Your task to perform on an android device: turn on the 12-hour format for clock Image 0: 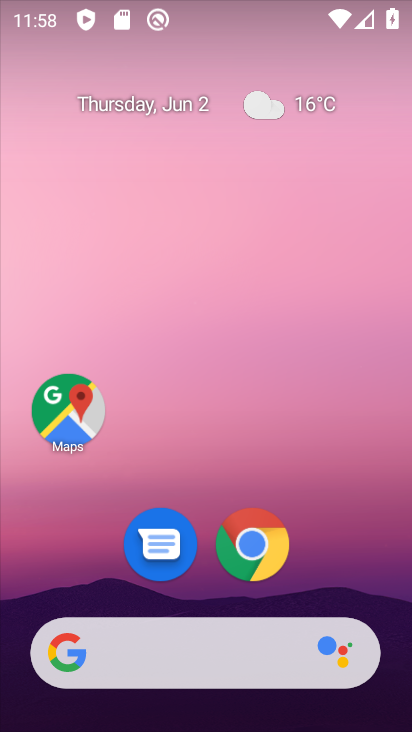
Step 0: drag from (321, 546) to (350, 150)
Your task to perform on an android device: turn on the 12-hour format for clock Image 1: 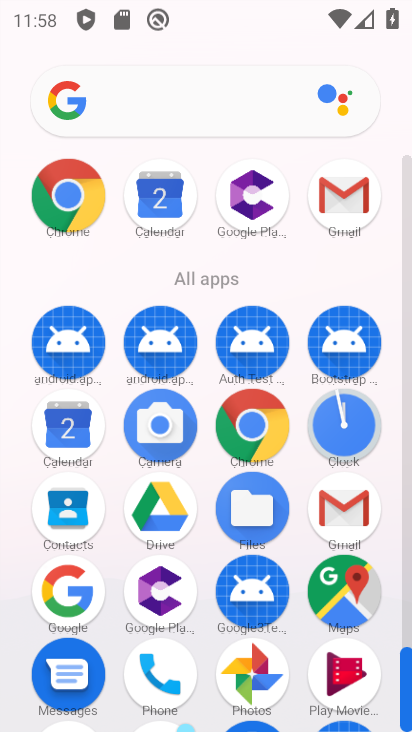
Step 1: drag from (290, 657) to (306, 345)
Your task to perform on an android device: turn on the 12-hour format for clock Image 2: 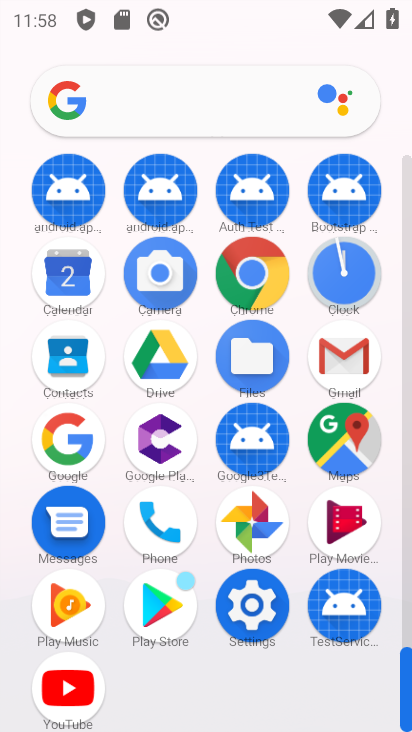
Step 2: click (329, 289)
Your task to perform on an android device: turn on the 12-hour format for clock Image 3: 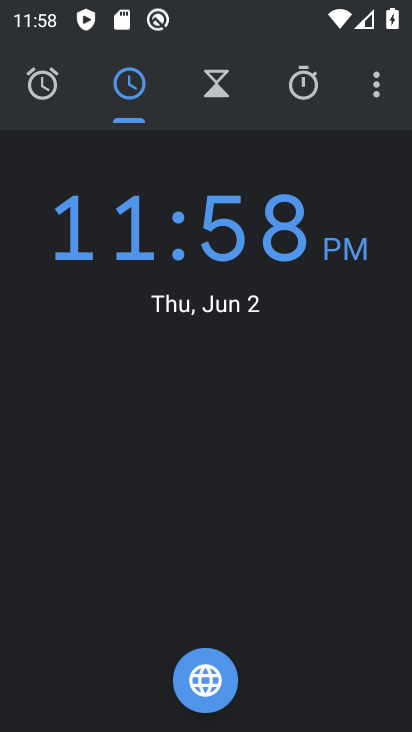
Step 3: click (371, 93)
Your task to perform on an android device: turn on the 12-hour format for clock Image 4: 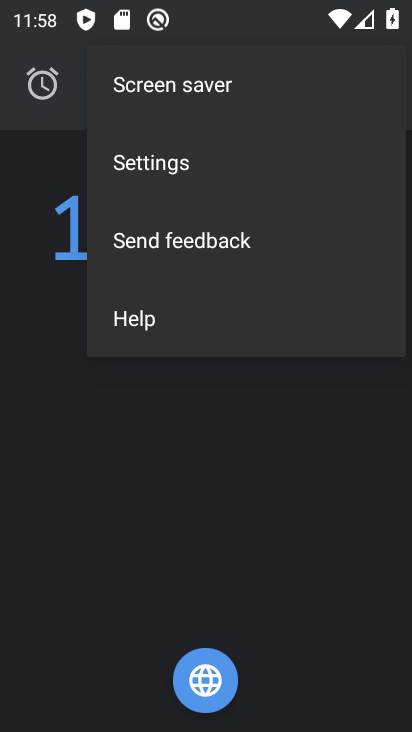
Step 4: click (247, 154)
Your task to perform on an android device: turn on the 12-hour format for clock Image 5: 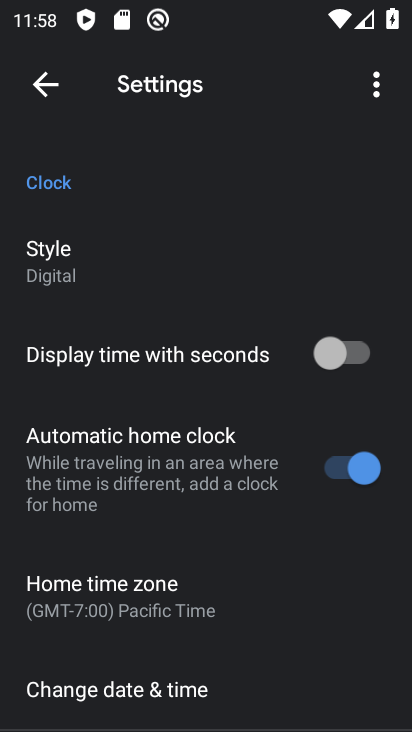
Step 5: drag from (295, 599) to (288, 289)
Your task to perform on an android device: turn on the 12-hour format for clock Image 6: 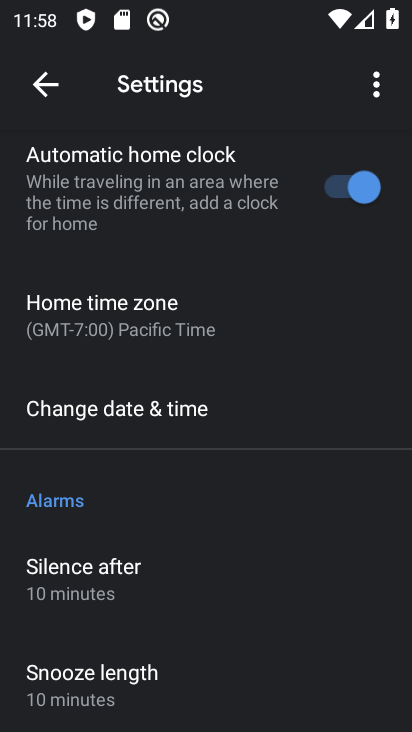
Step 6: click (230, 428)
Your task to perform on an android device: turn on the 12-hour format for clock Image 7: 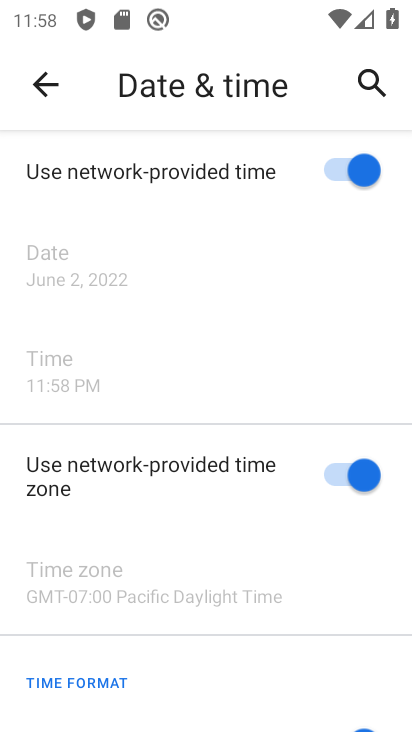
Step 7: task complete